Your task to perform on an android device: Check the weather Image 0: 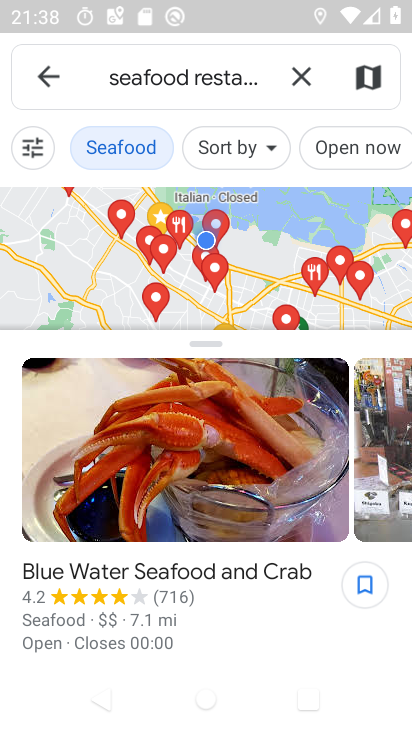
Step 0: press home button
Your task to perform on an android device: Check the weather Image 1: 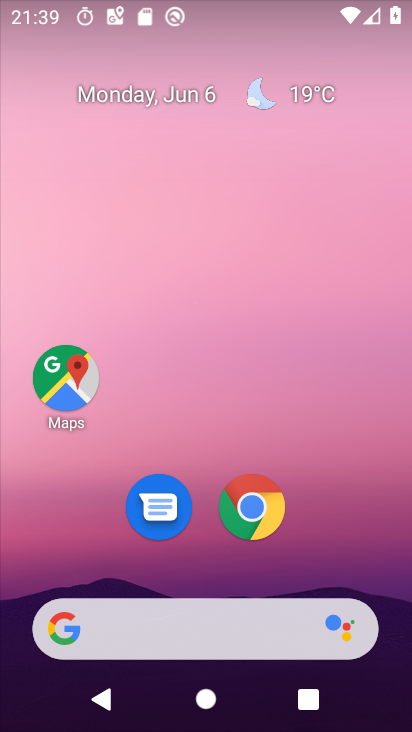
Step 1: drag from (262, 554) to (328, 125)
Your task to perform on an android device: Check the weather Image 2: 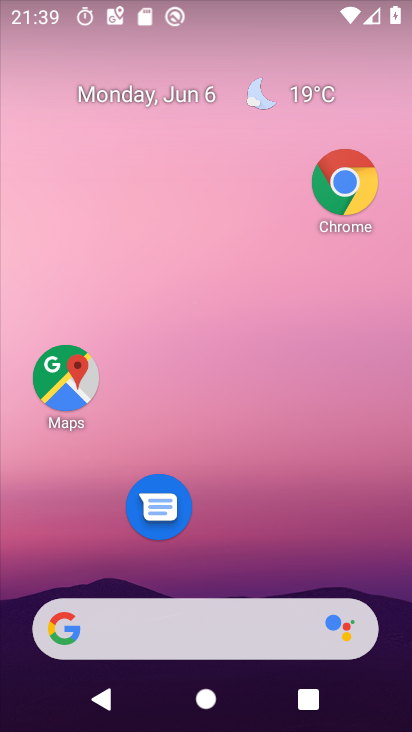
Step 2: drag from (306, 531) to (278, 129)
Your task to perform on an android device: Check the weather Image 3: 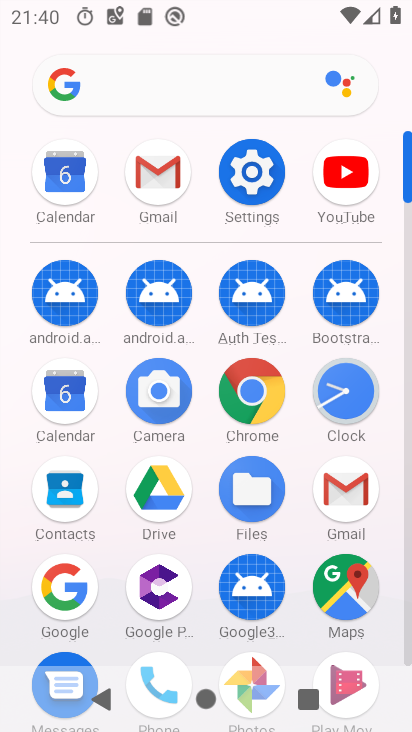
Step 3: click (264, 394)
Your task to perform on an android device: Check the weather Image 4: 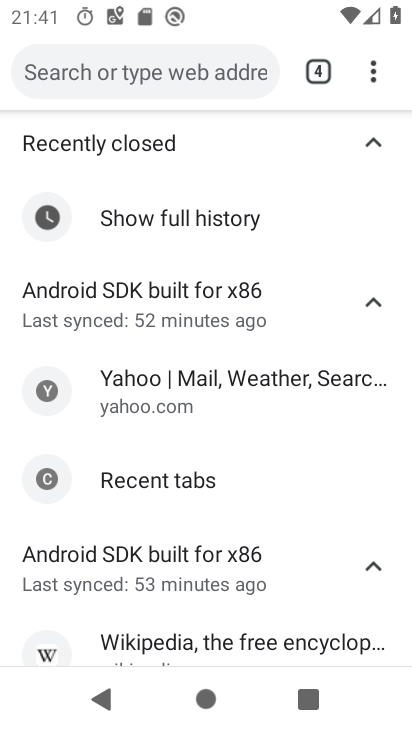
Step 4: click (234, 68)
Your task to perform on an android device: Check the weather Image 5: 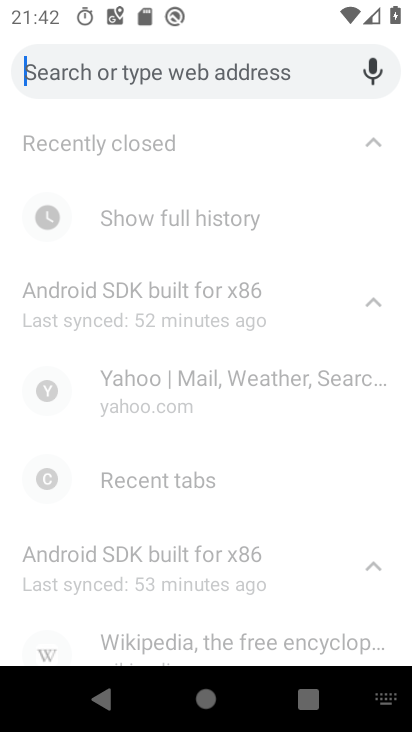
Step 5: type "weather"
Your task to perform on an android device: Check the weather Image 6: 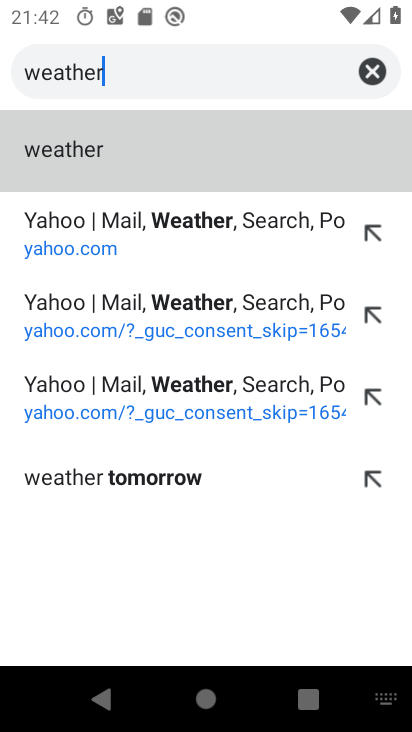
Step 6: click (174, 168)
Your task to perform on an android device: Check the weather Image 7: 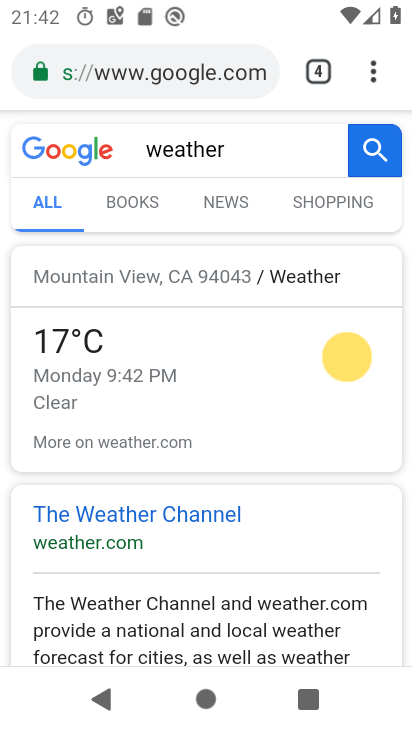
Step 7: task complete